Your task to perform on an android device: When is my next appointment? Image 0: 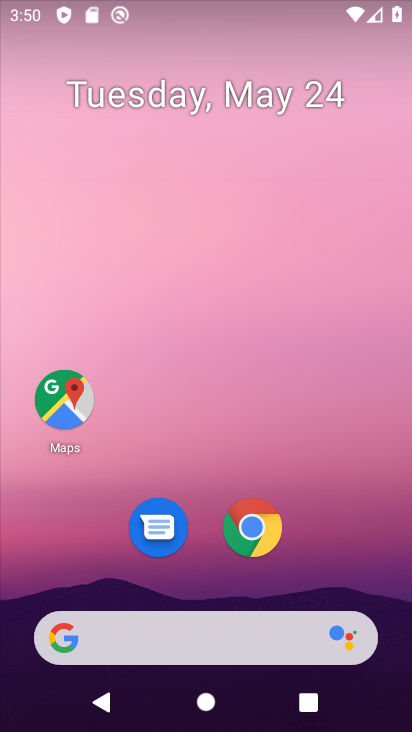
Step 0: drag from (251, 668) to (254, 154)
Your task to perform on an android device: When is my next appointment? Image 1: 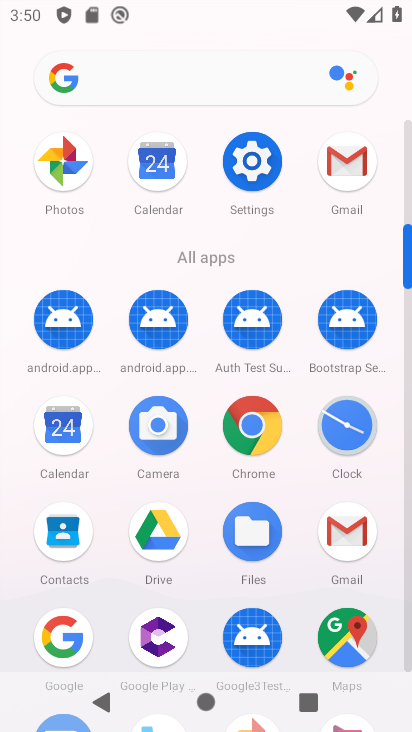
Step 1: click (45, 426)
Your task to perform on an android device: When is my next appointment? Image 2: 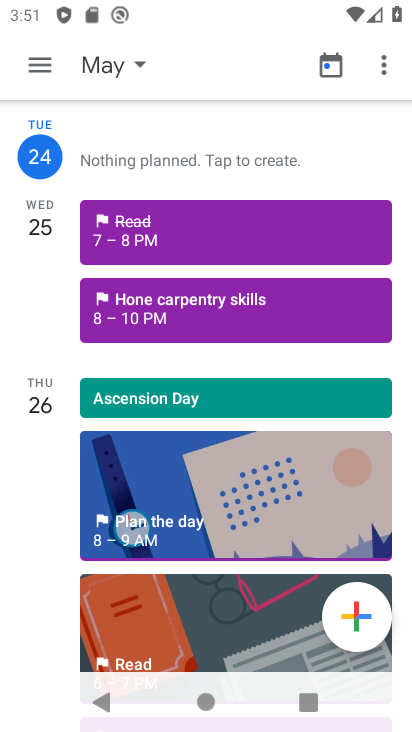
Step 2: task complete